Your task to perform on an android device: turn notification dots off Image 0: 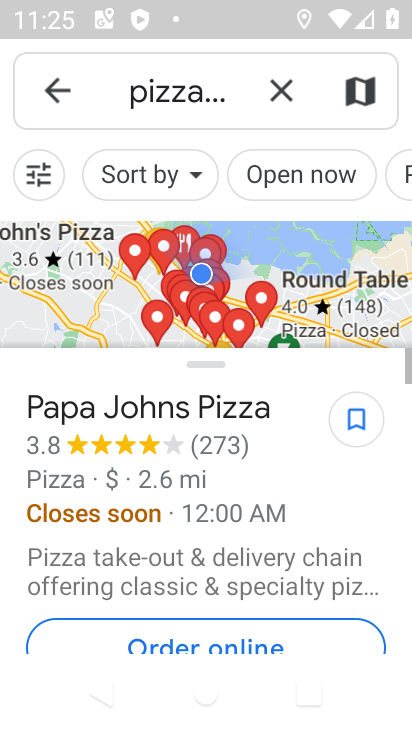
Step 0: press home button
Your task to perform on an android device: turn notification dots off Image 1: 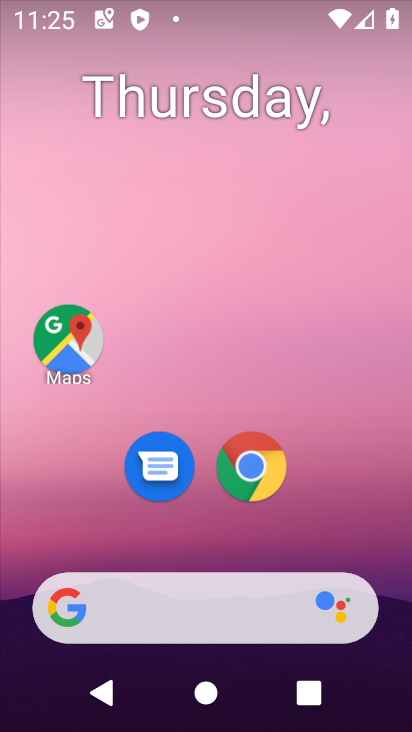
Step 1: drag from (392, 613) to (325, 52)
Your task to perform on an android device: turn notification dots off Image 2: 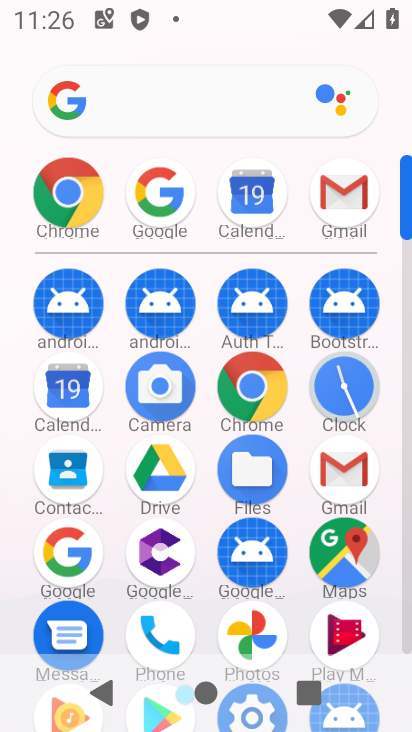
Step 2: drag from (299, 637) to (350, 96)
Your task to perform on an android device: turn notification dots off Image 3: 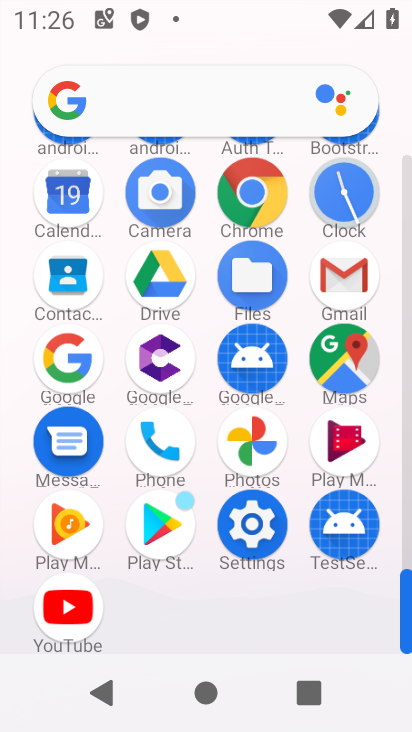
Step 3: click (251, 525)
Your task to perform on an android device: turn notification dots off Image 4: 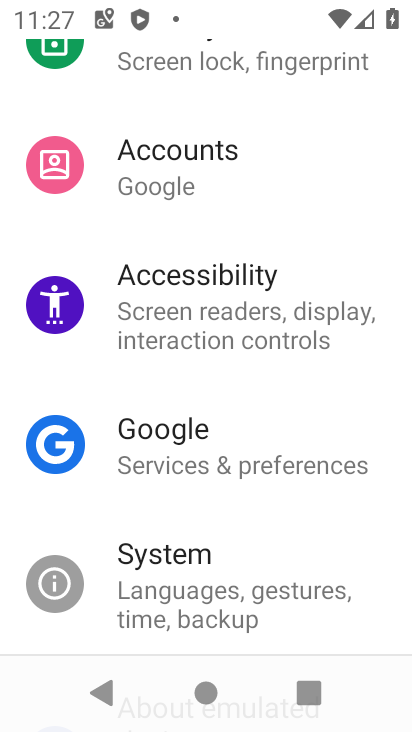
Step 4: drag from (232, 147) to (238, 591)
Your task to perform on an android device: turn notification dots off Image 5: 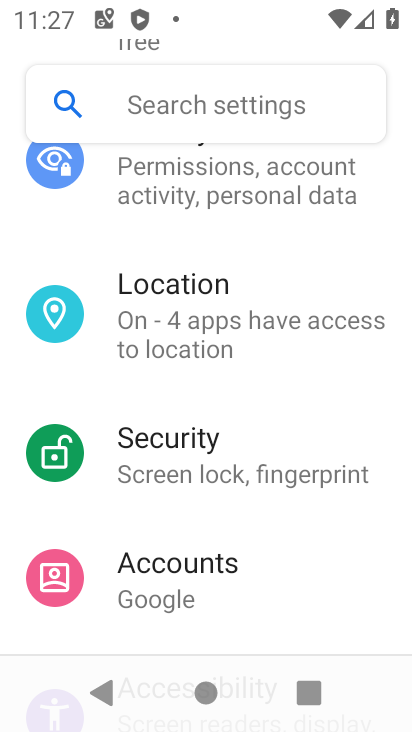
Step 5: drag from (207, 239) to (230, 564)
Your task to perform on an android device: turn notification dots off Image 6: 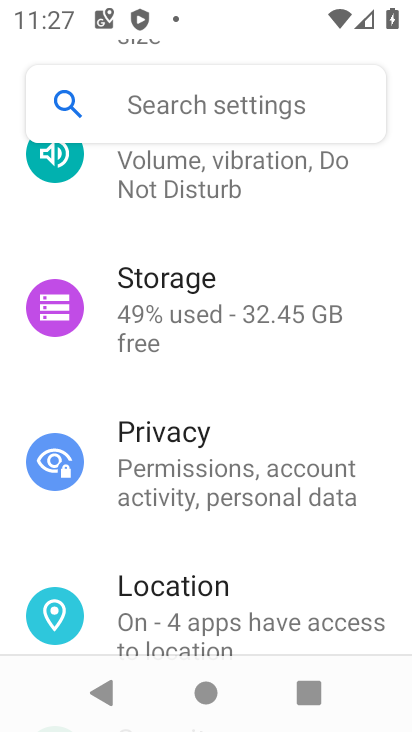
Step 6: drag from (255, 162) to (248, 543)
Your task to perform on an android device: turn notification dots off Image 7: 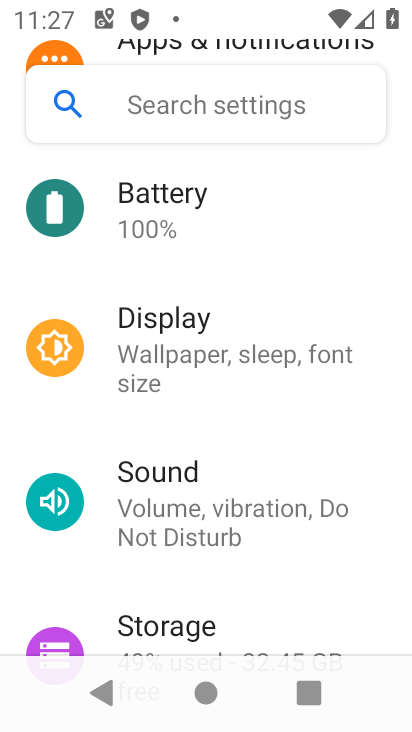
Step 7: drag from (169, 223) to (203, 574)
Your task to perform on an android device: turn notification dots off Image 8: 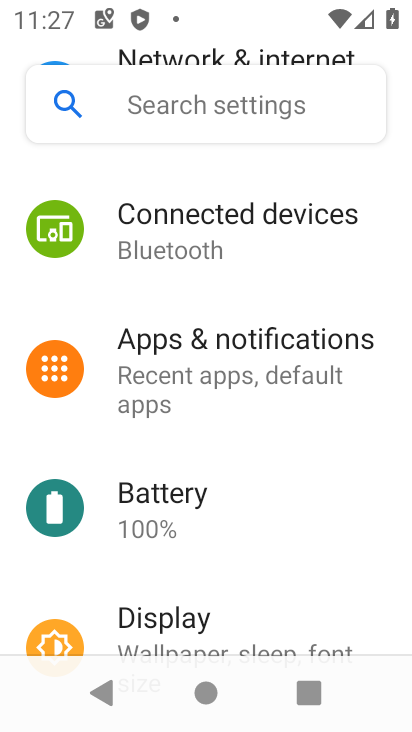
Step 8: click (191, 378)
Your task to perform on an android device: turn notification dots off Image 9: 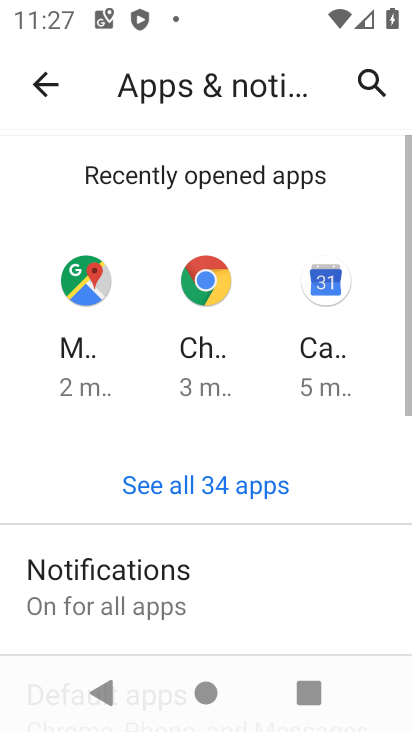
Step 9: click (144, 612)
Your task to perform on an android device: turn notification dots off Image 10: 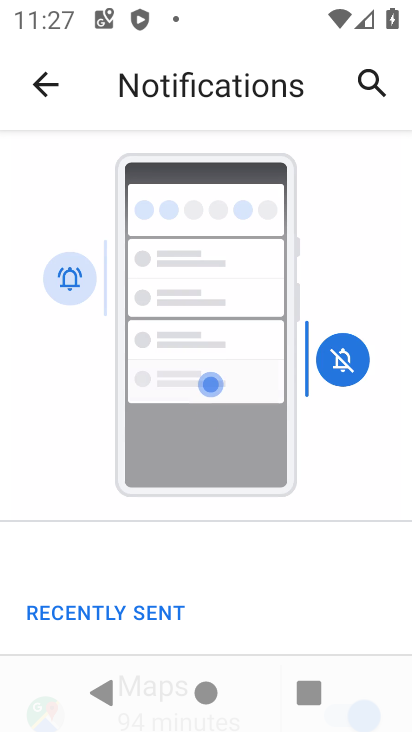
Step 10: drag from (141, 635) to (220, 35)
Your task to perform on an android device: turn notification dots off Image 11: 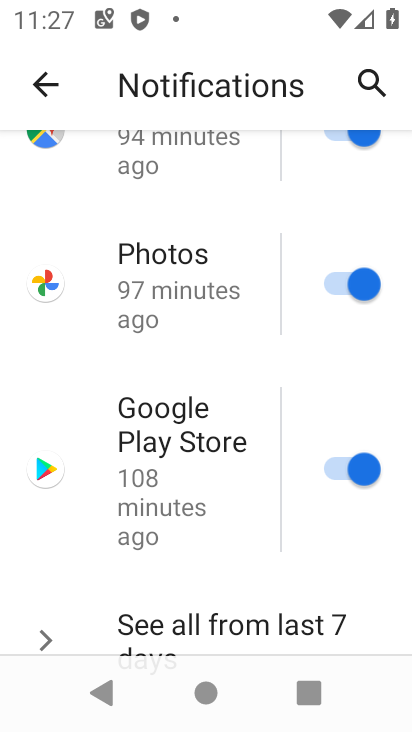
Step 11: drag from (164, 576) to (264, 99)
Your task to perform on an android device: turn notification dots off Image 12: 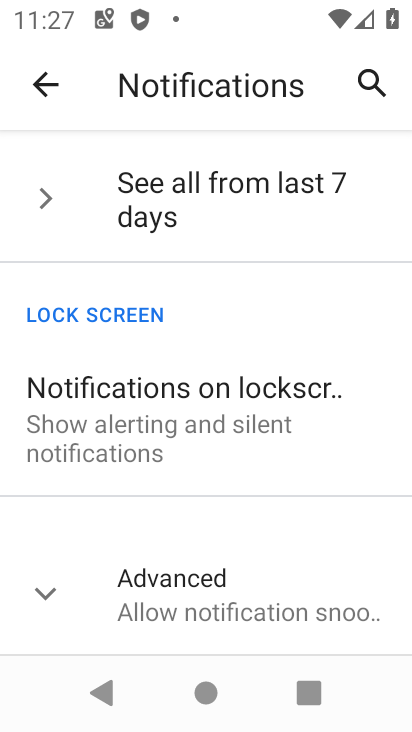
Step 12: click (150, 585)
Your task to perform on an android device: turn notification dots off Image 13: 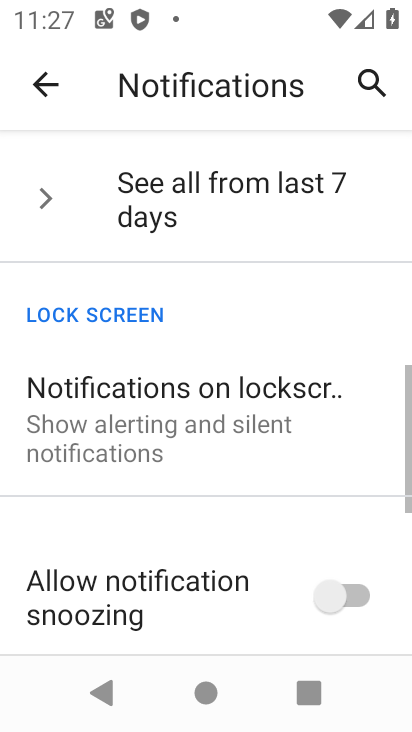
Step 13: drag from (197, 583) to (304, 147)
Your task to perform on an android device: turn notification dots off Image 14: 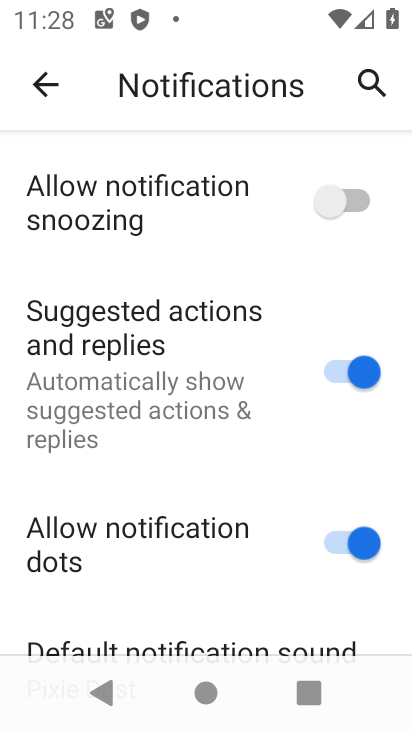
Step 14: click (236, 549)
Your task to perform on an android device: turn notification dots off Image 15: 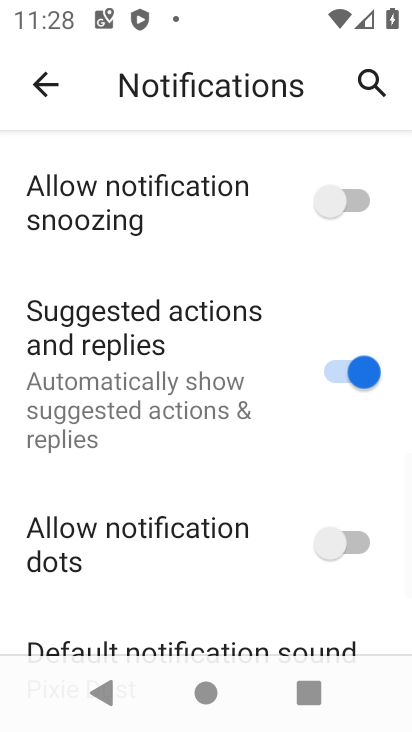
Step 15: task complete